Your task to perform on an android device: Open battery settings Image 0: 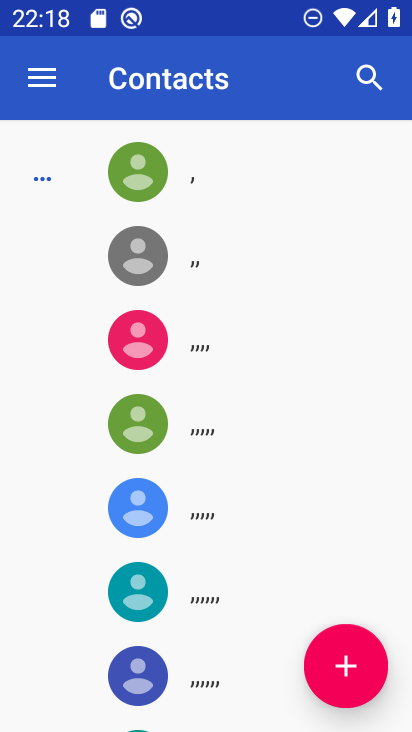
Step 0: press home button
Your task to perform on an android device: Open battery settings Image 1: 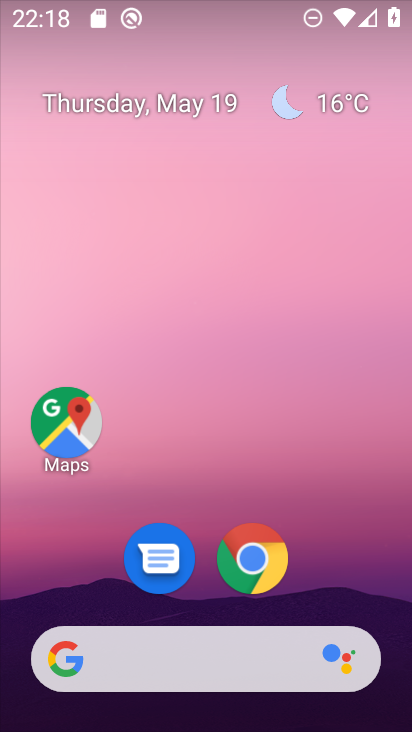
Step 1: drag from (206, 728) to (201, 115)
Your task to perform on an android device: Open battery settings Image 2: 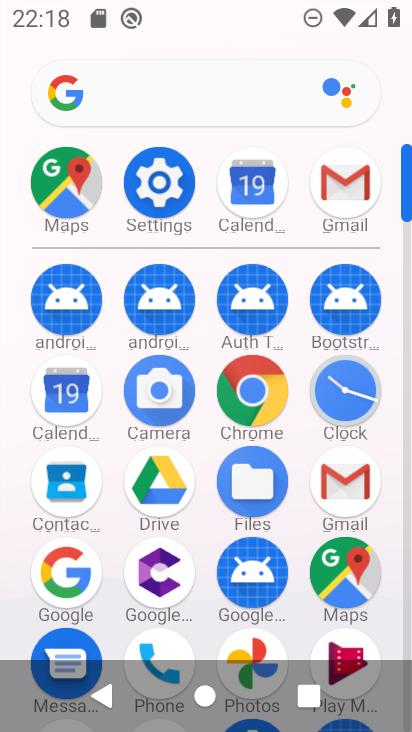
Step 2: click (164, 179)
Your task to perform on an android device: Open battery settings Image 3: 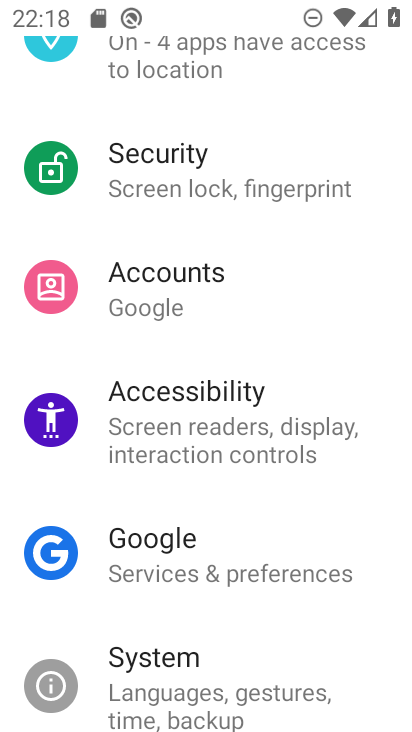
Step 3: drag from (228, 219) to (252, 465)
Your task to perform on an android device: Open battery settings Image 4: 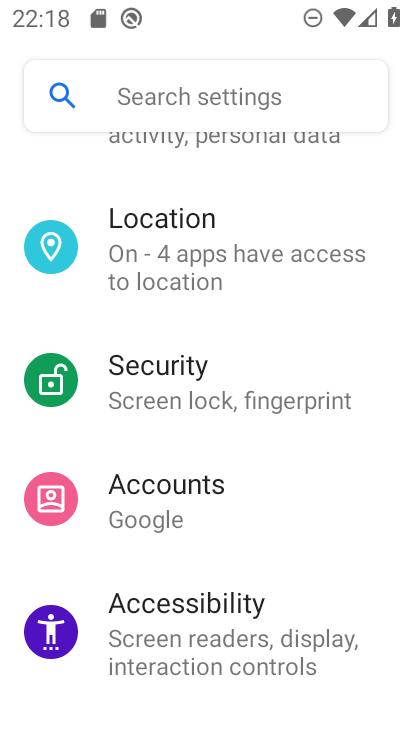
Step 4: drag from (250, 186) to (248, 520)
Your task to perform on an android device: Open battery settings Image 5: 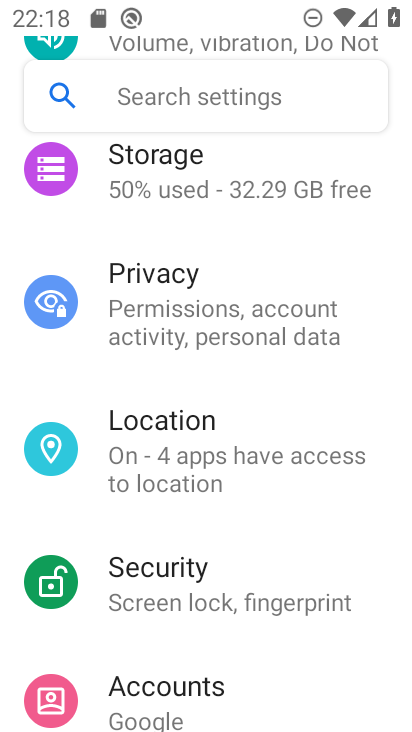
Step 5: drag from (248, 199) to (248, 570)
Your task to perform on an android device: Open battery settings Image 6: 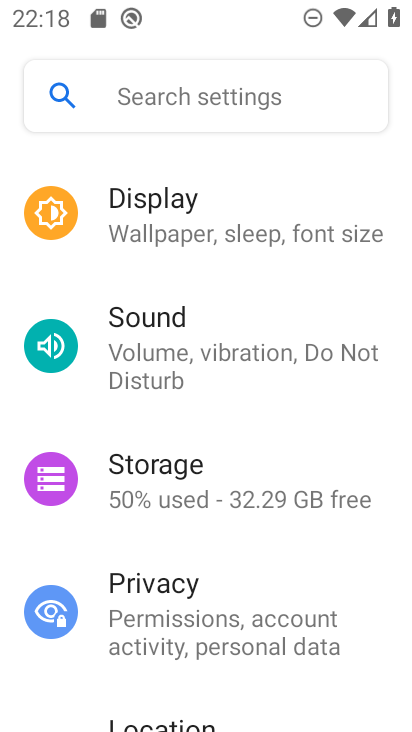
Step 6: drag from (241, 293) to (245, 607)
Your task to perform on an android device: Open battery settings Image 7: 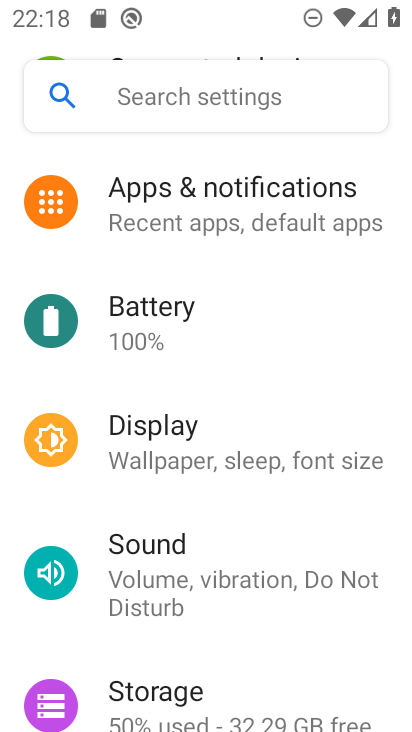
Step 7: click (131, 323)
Your task to perform on an android device: Open battery settings Image 8: 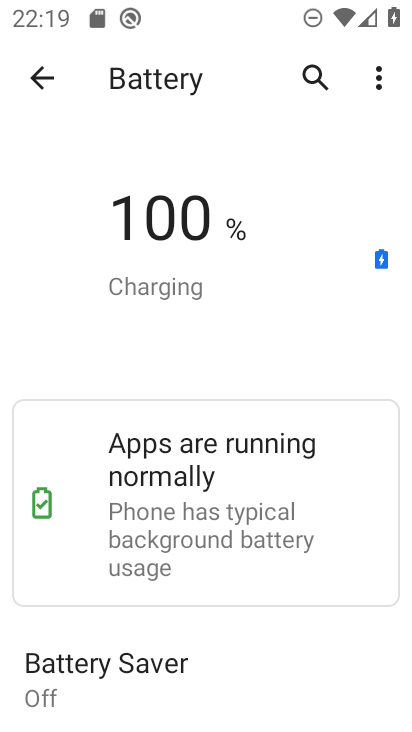
Step 8: task complete